Your task to perform on an android device: Open my contact list Image 0: 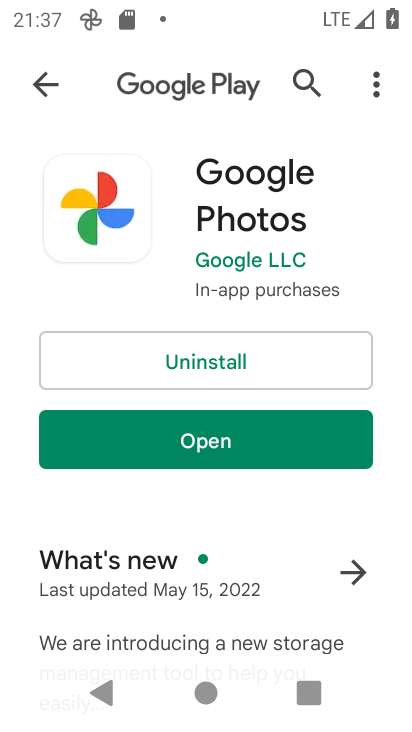
Step 0: task impossible